Your task to perform on an android device: See recent photos Image 0: 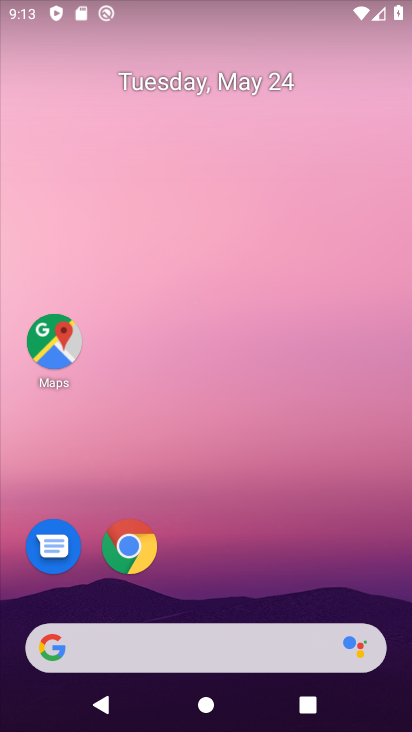
Step 0: drag from (259, 541) to (259, 120)
Your task to perform on an android device: See recent photos Image 1: 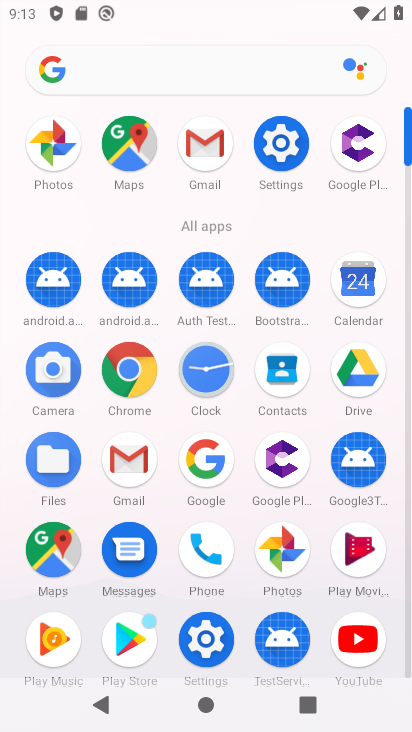
Step 1: click (49, 133)
Your task to perform on an android device: See recent photos Image 2: 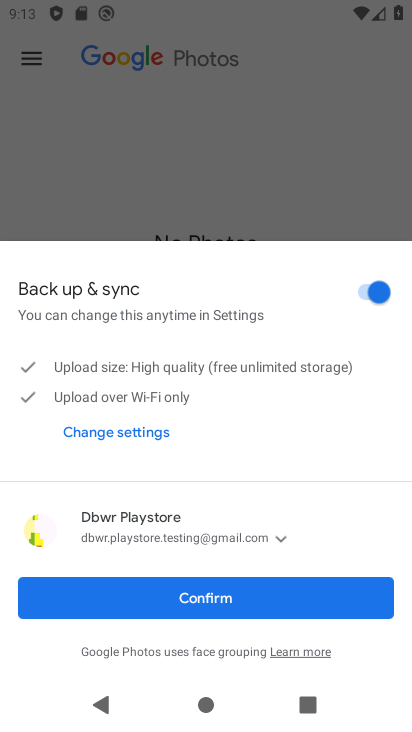
Step 2: click (207, 595)
Your task to perform on an android device: See recent photos Image 3: 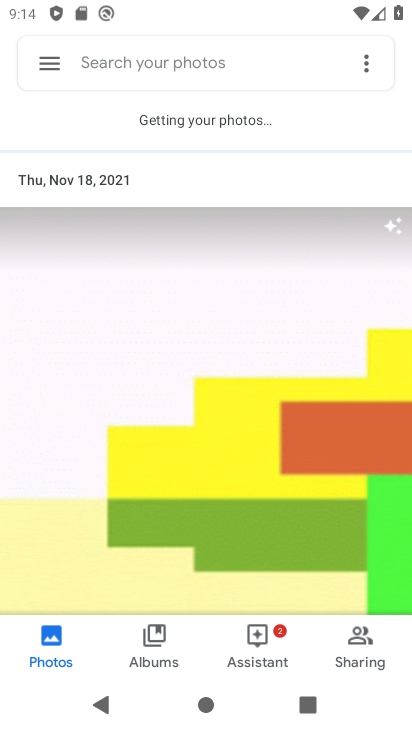
Step 3: task complete